Your task to perform on an android device: Go to internet settings Image 0: 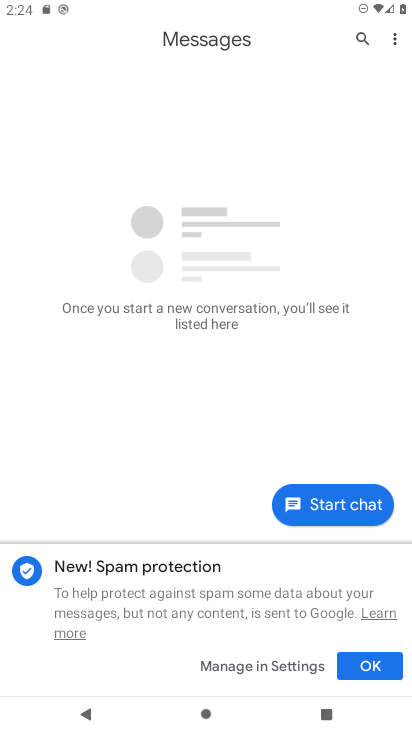
Step 0: press home button
Your task to perform on an android device: Go to internet settings Image 1: 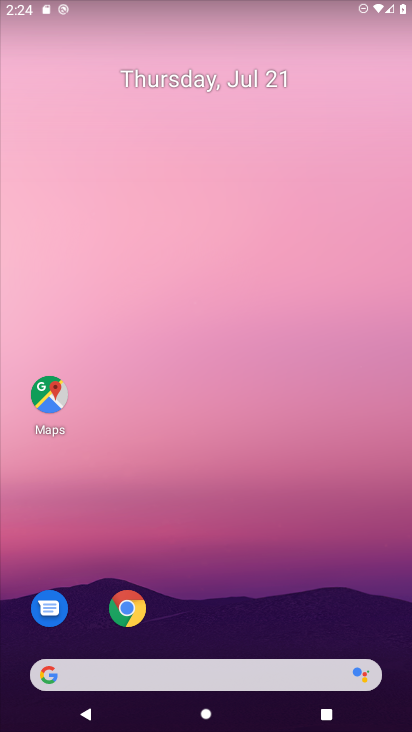
Step 1: drag from (205, 619) to (195, 140)
Your task to perform on an android device: Go to internet settings Image 2: 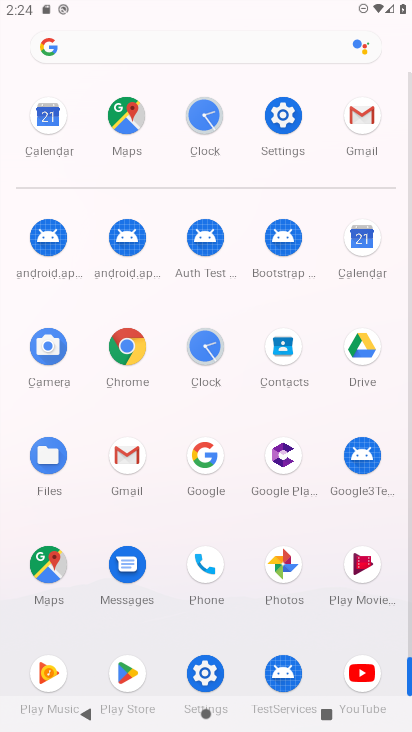
Step 2: click (270, 124)
Your task to perform on an android device: Go to internet settings Image 3: 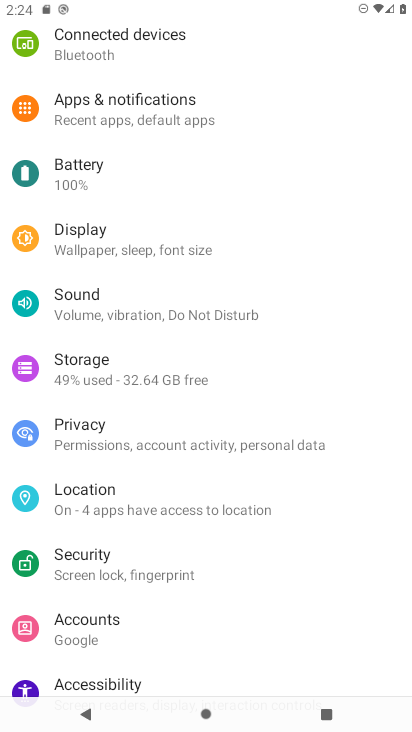
Step 3: drag from (153, 189) to (188, 490)
Your task to perform on an android device: Go to internet settings Image 4: 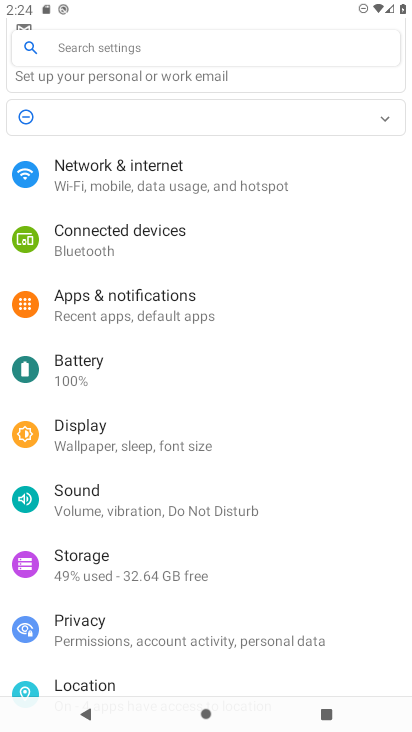
Step 4: click (142, 180)
Your task to perform on an android device: Go to internet settings Image 5: 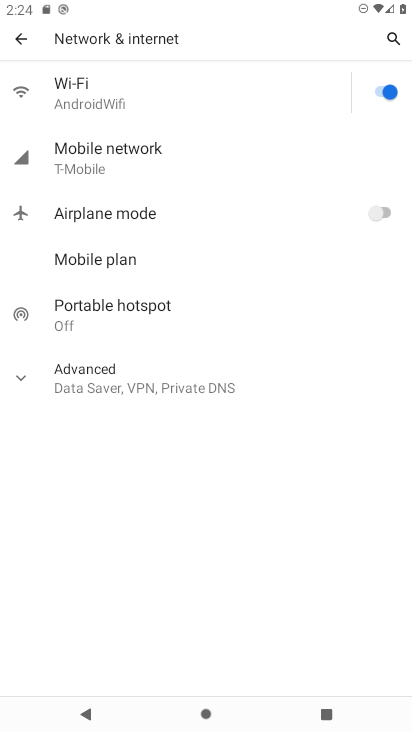
Step 5: task complete